Your task to perform on an android device: change the clock display to digital Image 0: 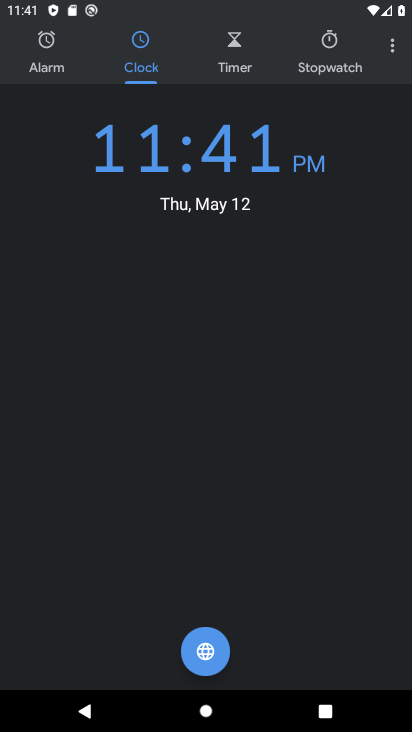
Step 0: click (394, 60)
Your task to perform on an android device: change the clock display to digital Image 1: 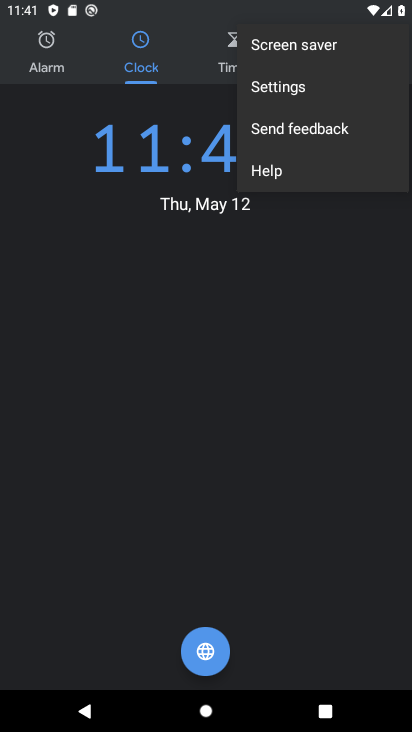
Step 1: click (314, 95)
Your task to perform on an android device: change the clock display to digital Image 2: 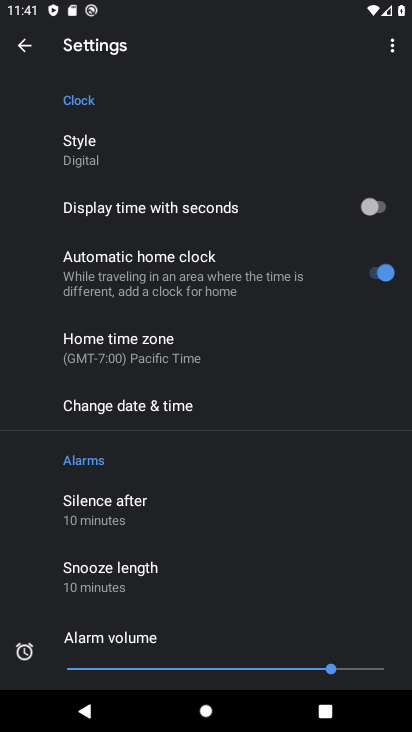
Step 2: click (104, 154)
Your task to perform on an android device: change the clock display to digital Image 3: 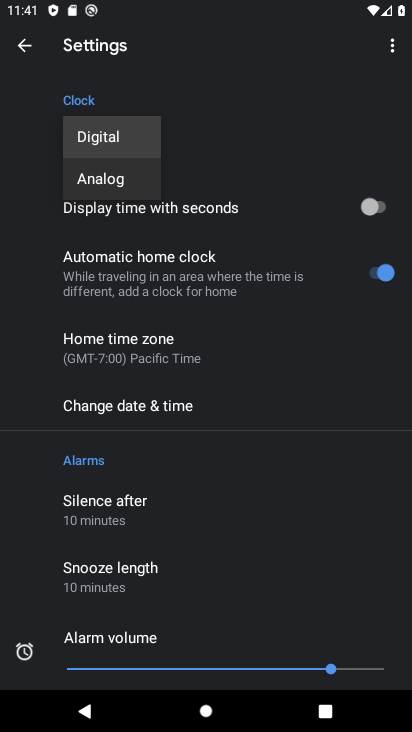
Step 3: task complete